Your task to perform on an android device: View the shopping cart on target.com. Image 0: 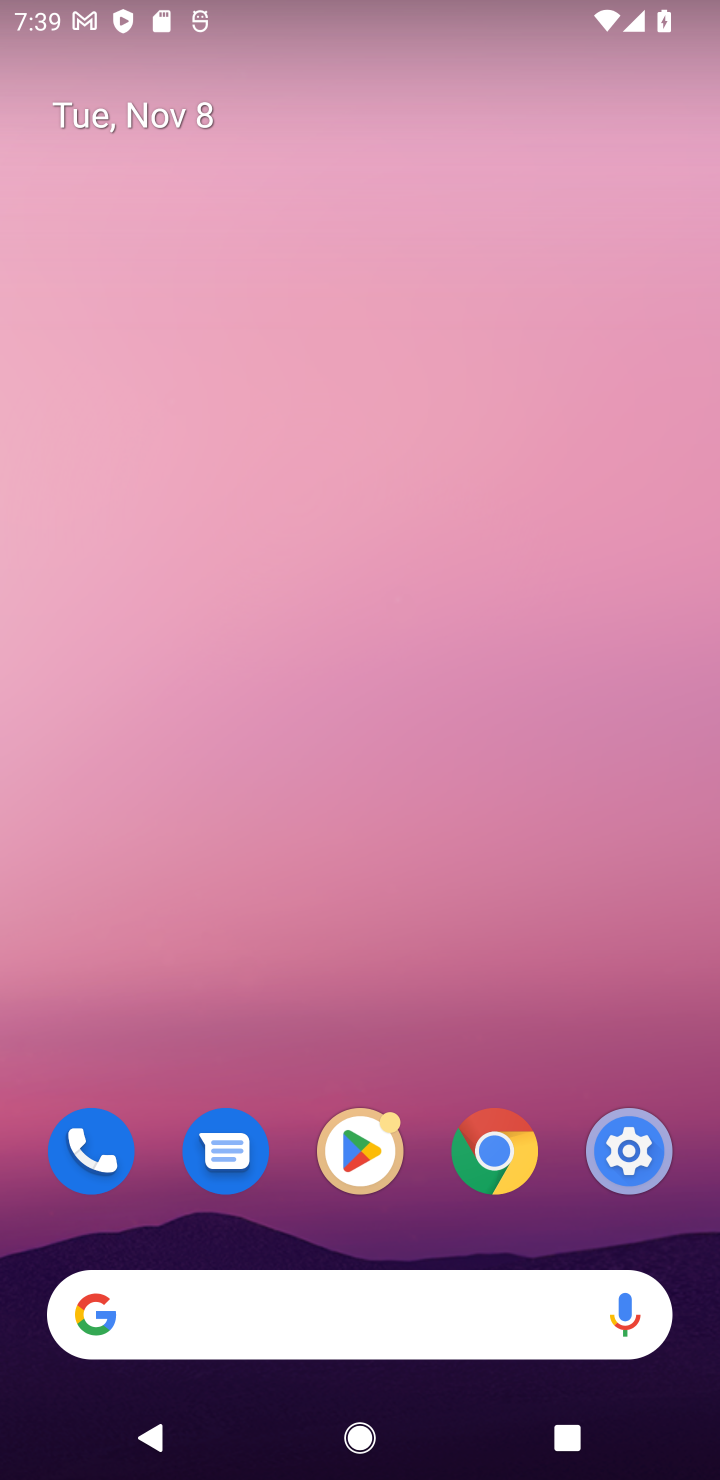
Step 0: click (449, 1291)
Your task to perform on an android device: View the shopping cart on target.com. Image 1: 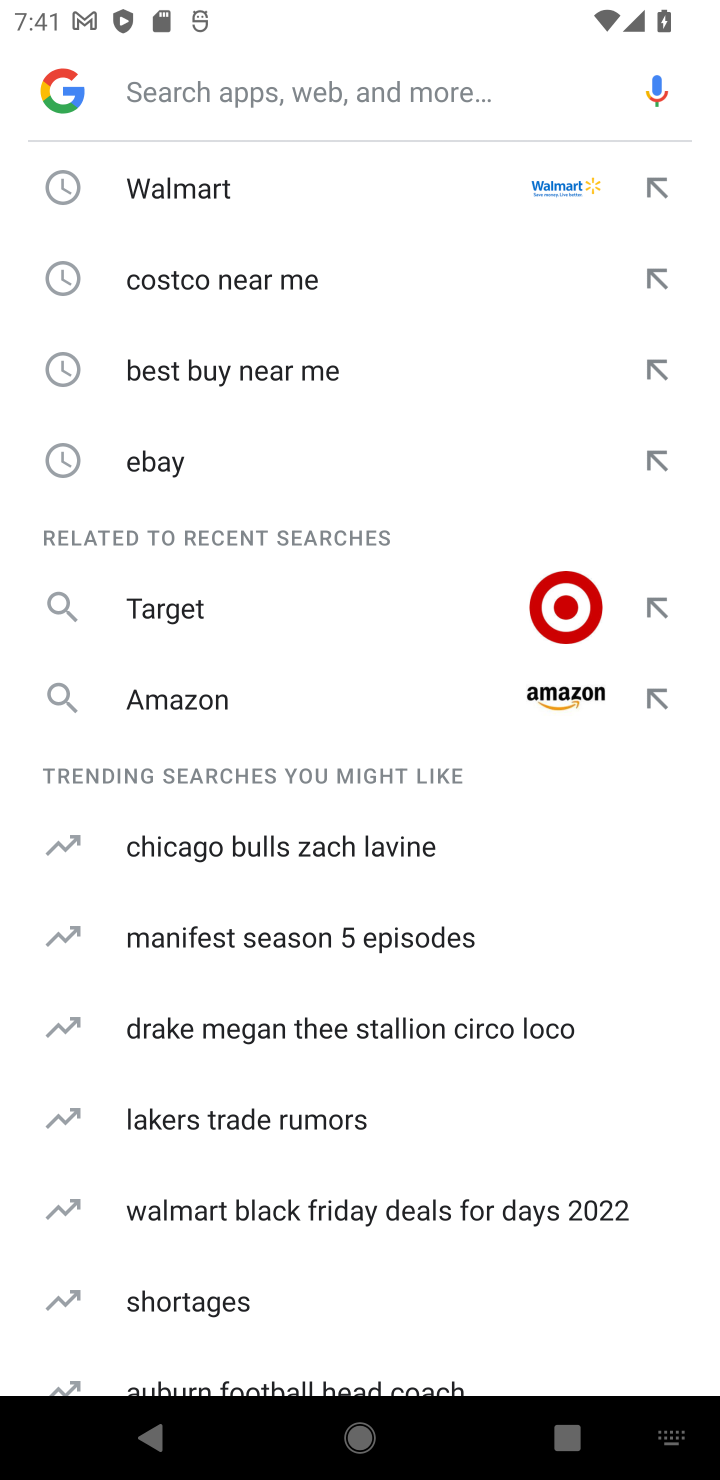
Step 1: click (209, 618)
Your task to perform on an android device: View the shopping cart on target.com. Image 2: 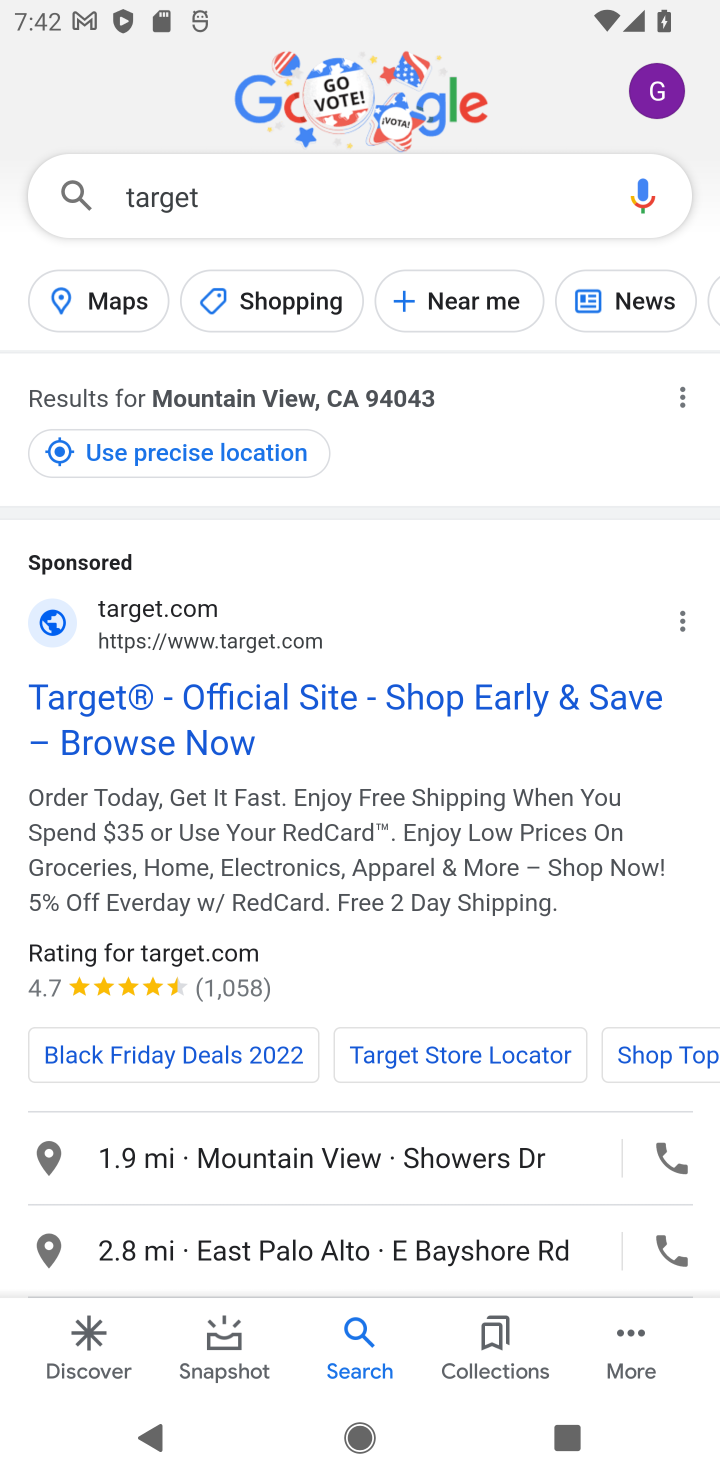
Step 2: click (414, 708)
Your task to perform on an android device: View the shopping cart on target.com. Image 3: 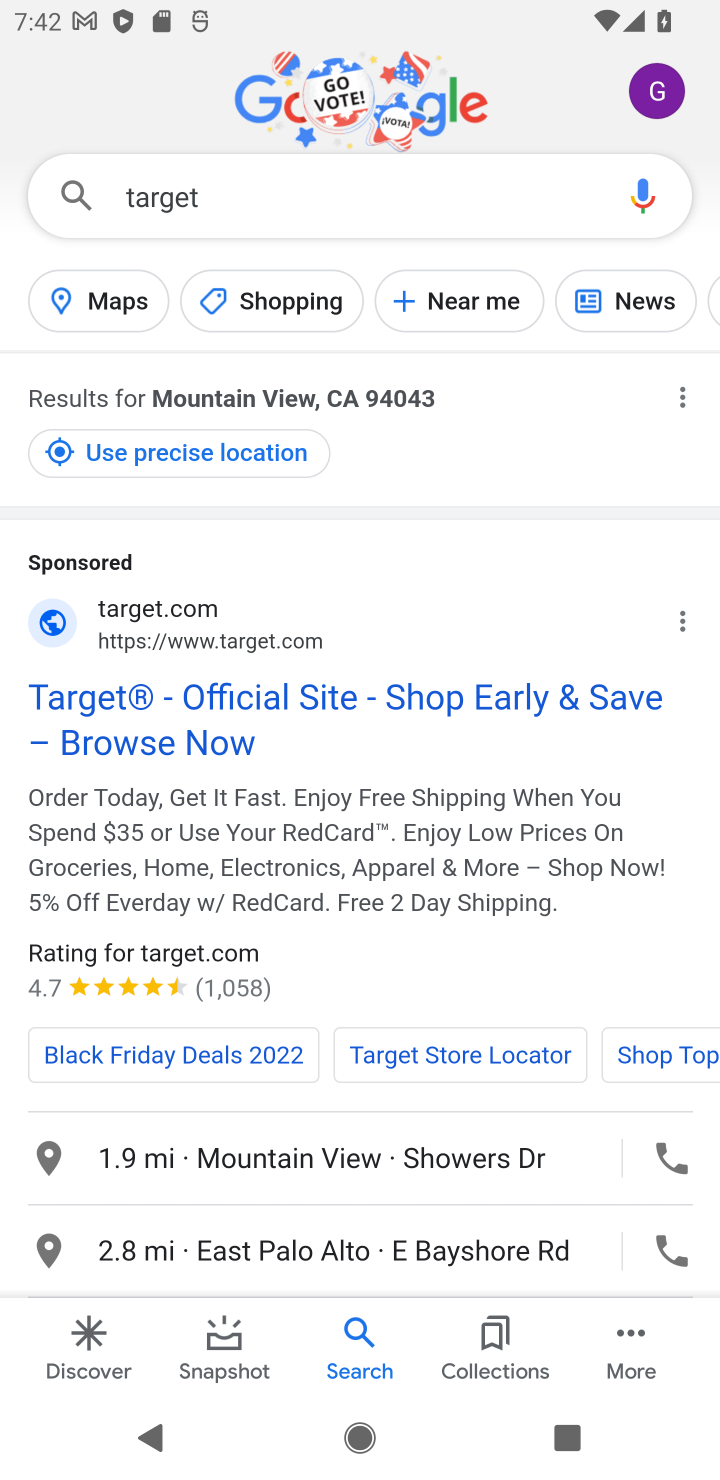
Step 3: task complete